Your task to perform on an android device: turn on wifi Image 0: 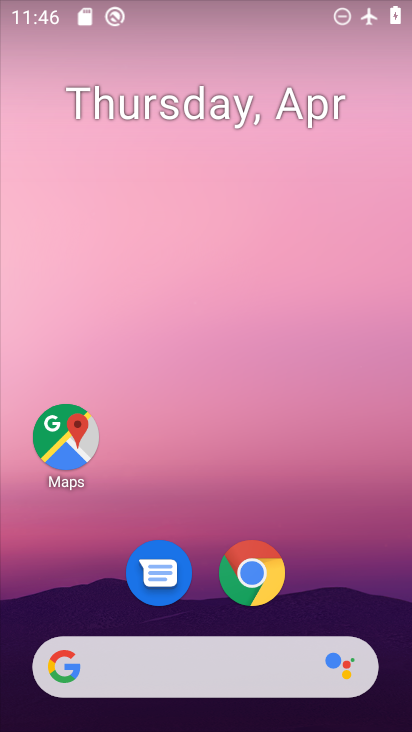
Step 0: drag from (353, 589) to (340, 29)
Your task to perform on an android device: turn on wifi Image 1: 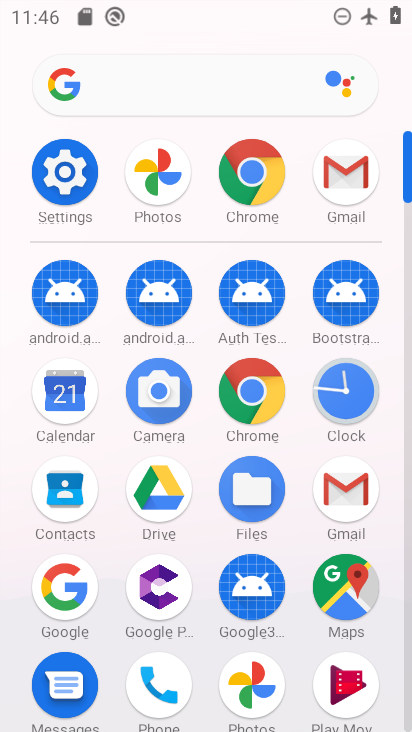
Step 1: click (72, 165)
Your task to perform on an android device: turn on wifi Image 2: 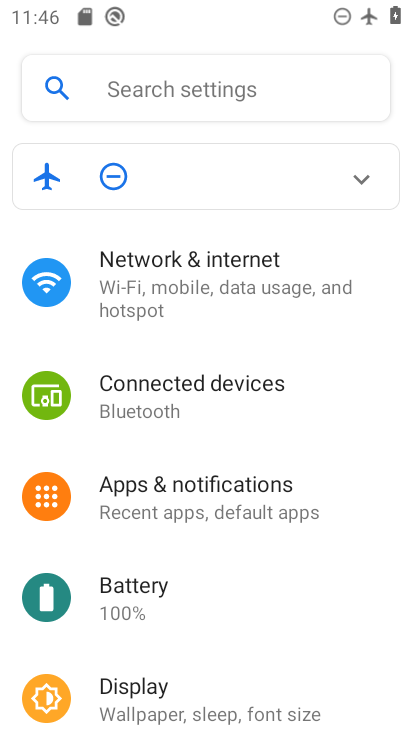
Step 2: click (278, 276)
Your task to perform on an android device: turn on wifi Image 3: 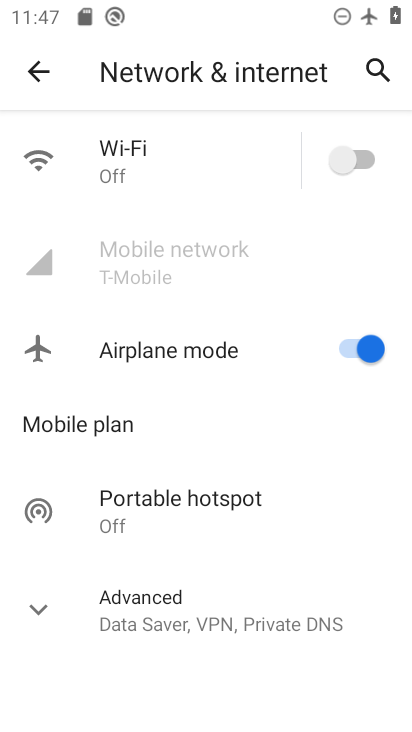
Step 3: click (345, 154)
Your task to perform on an android device: turn on wifi Image 4: 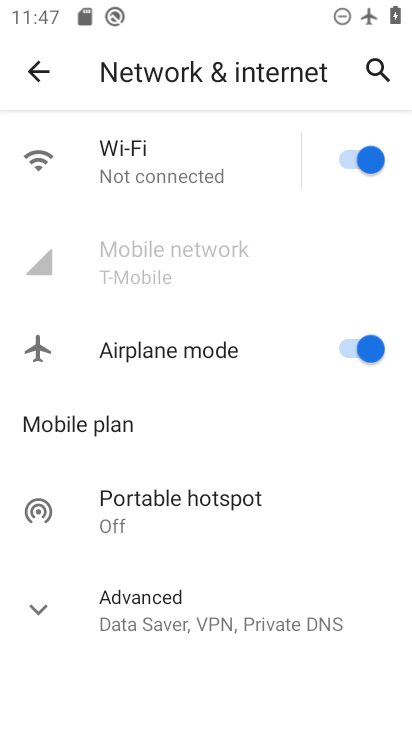
Step 4: task complete